Your task to perform on an android device: Go to Maps Image 0: 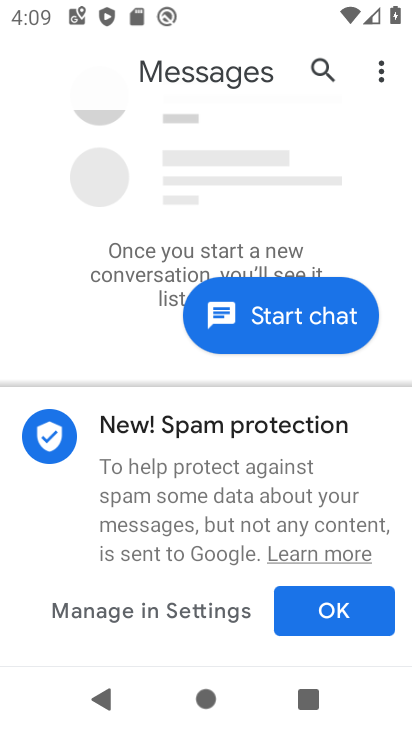
Step 0: press home button
Your task to perform on an android device: Go to Maps Image 1: 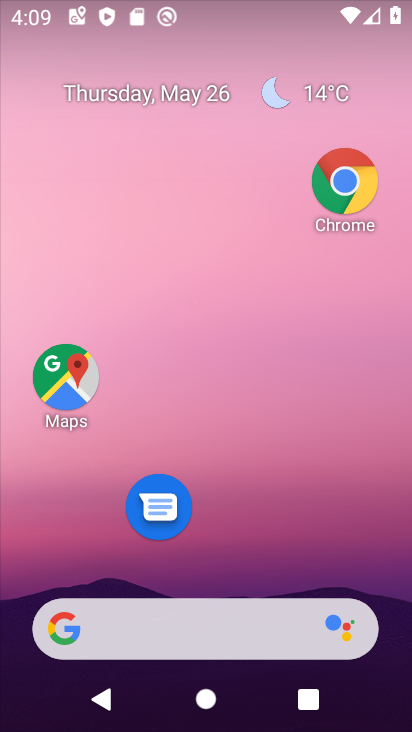
Step 1: click (59, 365)
Your task to perform on an android device: Go to Maps Image 2: 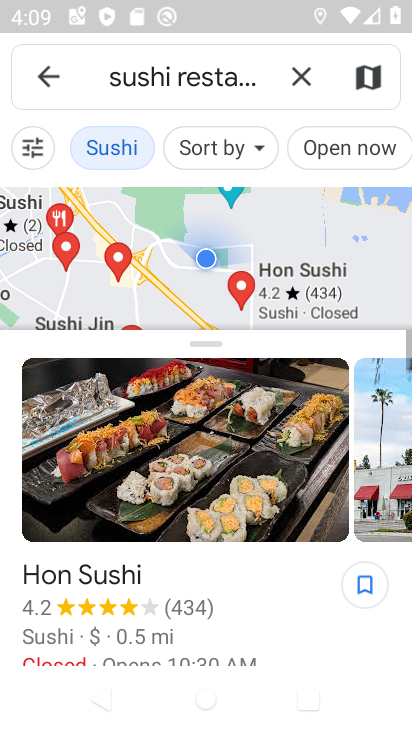
Step 2: click (36, 80)
Your task to perform on an android device: Go to Maps Image 3: 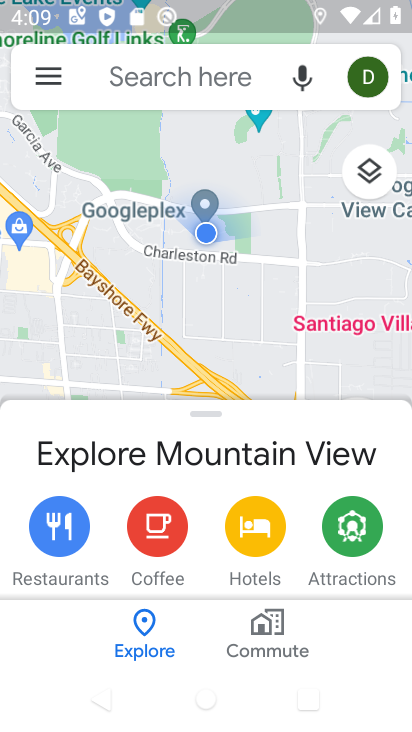
Step 3: task complete